Your task to perform on an android device: Open Google Chrome and click the shortcut for Amazon.com Image 0: 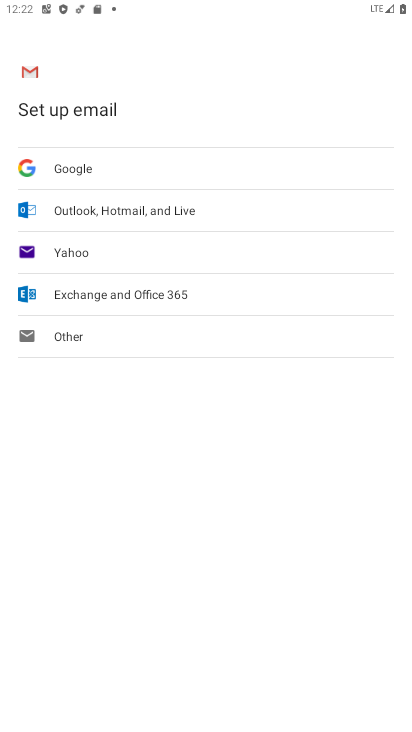
Step 0: press home button
Your task to perform on an android device: Open Google Chrome and click the shortcut for Amazon.com Image 1: 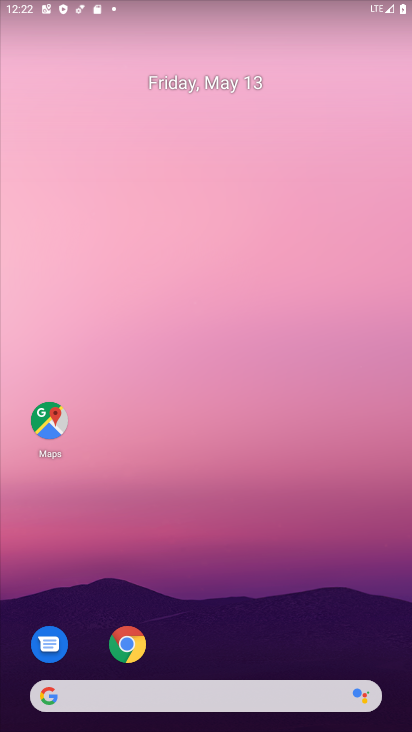
Step 1: drag from (348, 621) to (259, 76)
Your task to perform on an android device: Open Google Chrome and click the shortcut for Amazon.com Image 2: 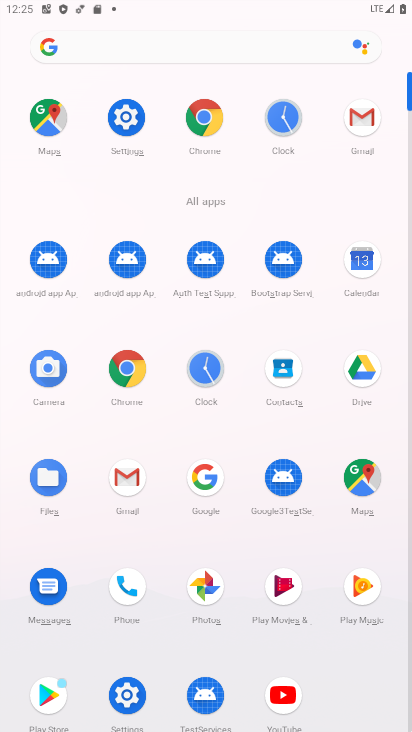
Step 2: click (129, 375)
Your task to perform on an android device: Open Google Chrome and click the shortcut for Amazon.com Image 3: 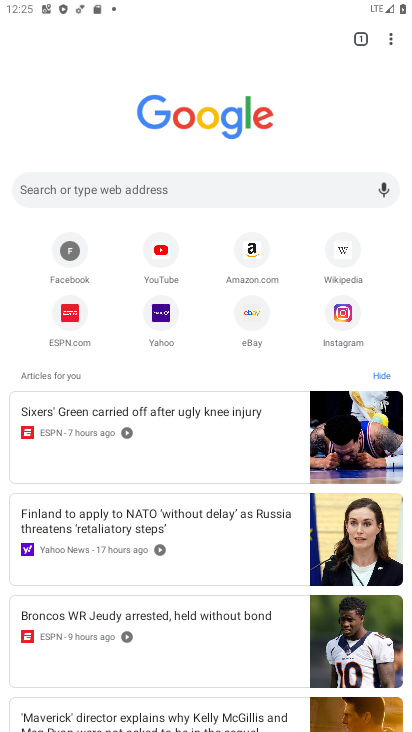
Step 3: click (256, 259)
Your task to perform on an android device: Open Google Chrome and click the shortcut for Amazon.com Image 4: 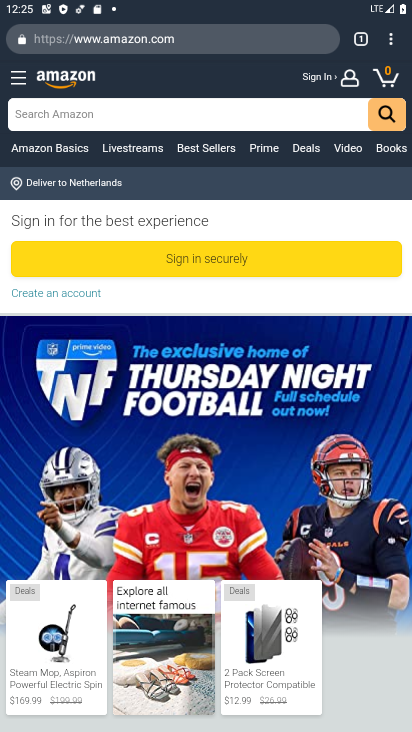
Step 4: task complete